Your task to perform on an android device: open app "The Home Depot" (install if not already installed) Image 0: 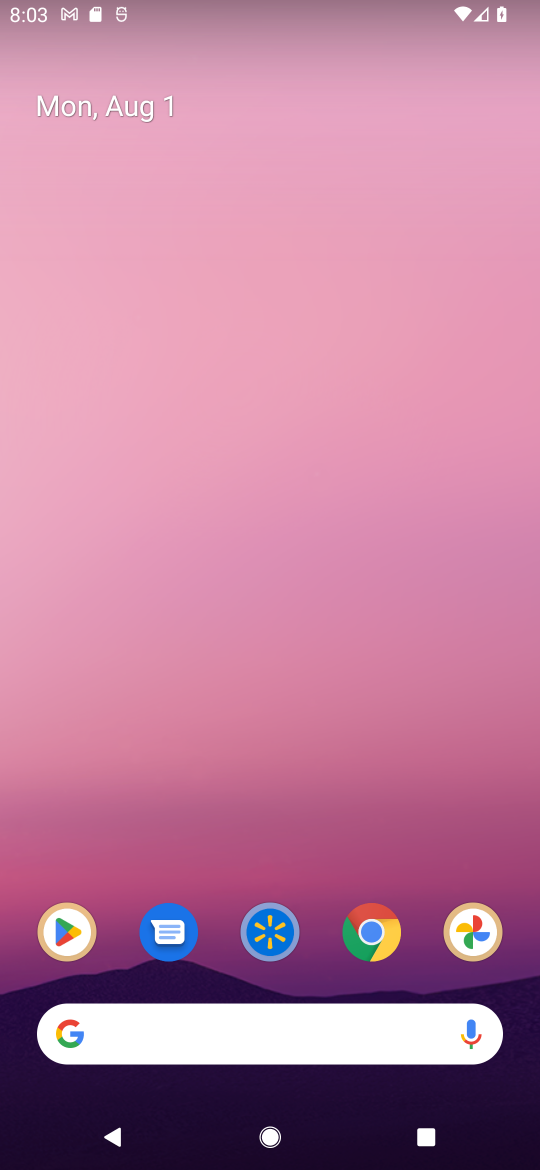
Step 0: click (66, 931)
Your task to perform on an android device: open app "The Home Depot" (install if not already installed) Image 1: 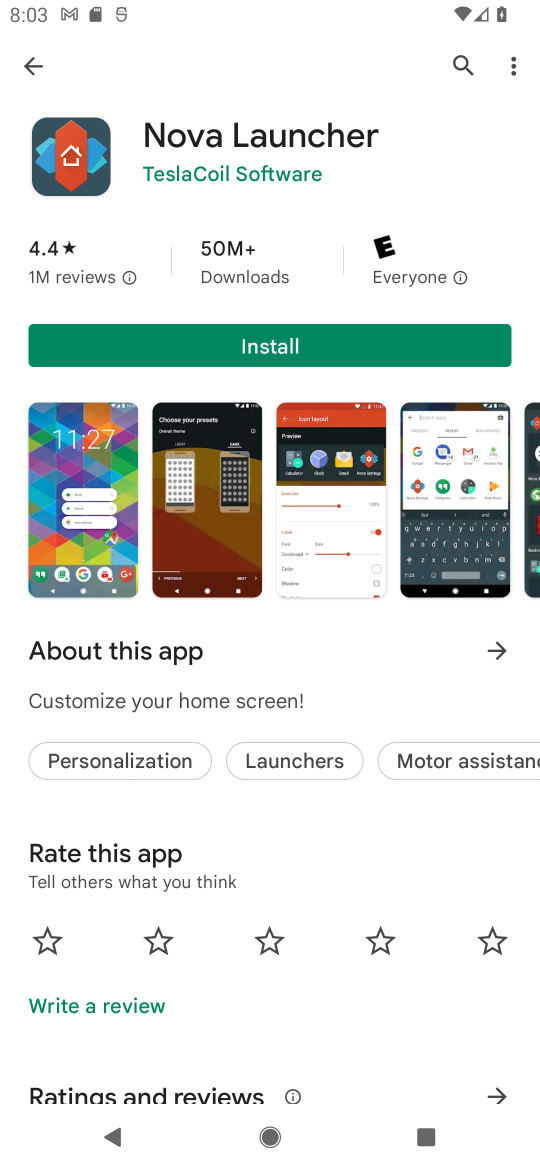
Step 1: click (25, 65)
Your task to perform on an android device: open app "The Home Depot" (install if not already installed) Image 2: 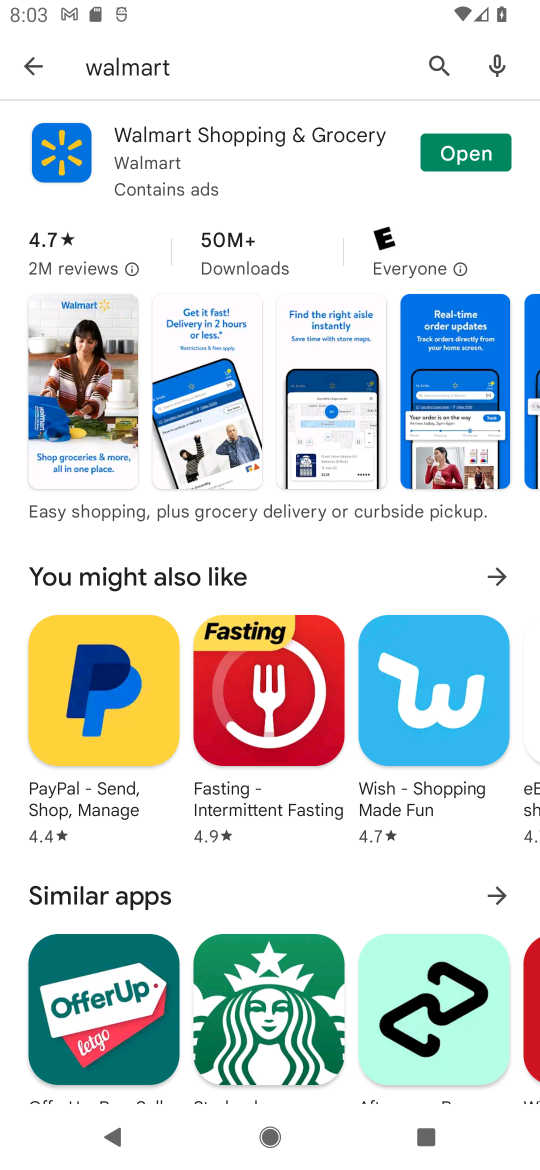
Step 2: click (226, 66)
Your task to perform on an android device: open app "The Home Depot" (install if not already installed) Image 3: 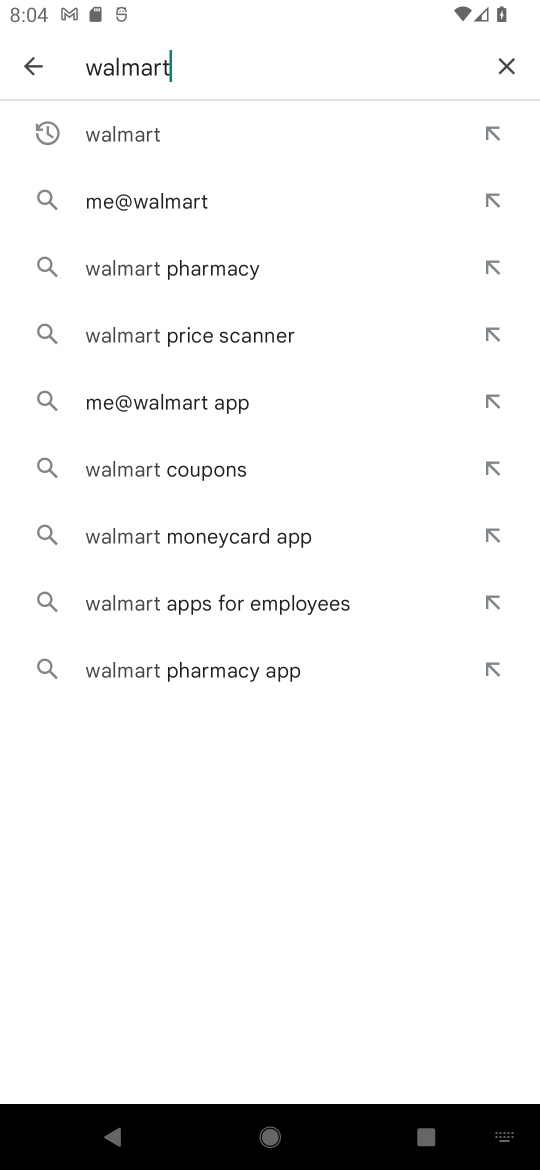
Step 3: click (514, 58)
Your task to perform on an android device: open app "The Home Depot" (install if not already installed) Image 4: 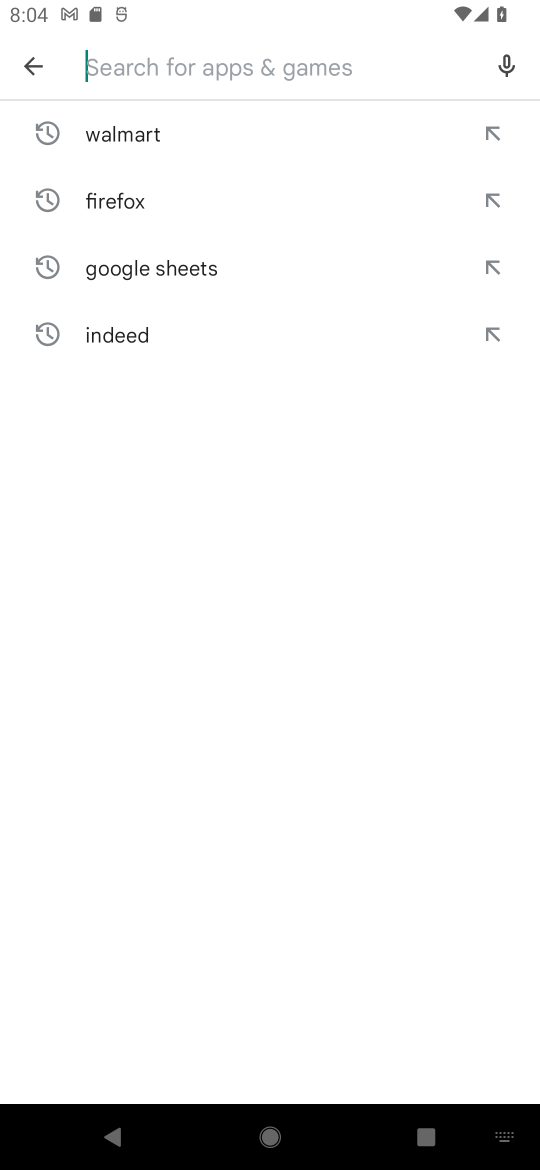
Step 4: type "the home depot"
Your task to perform on an android device: open app "The Home Depot" (install if not already installed) Image 5: 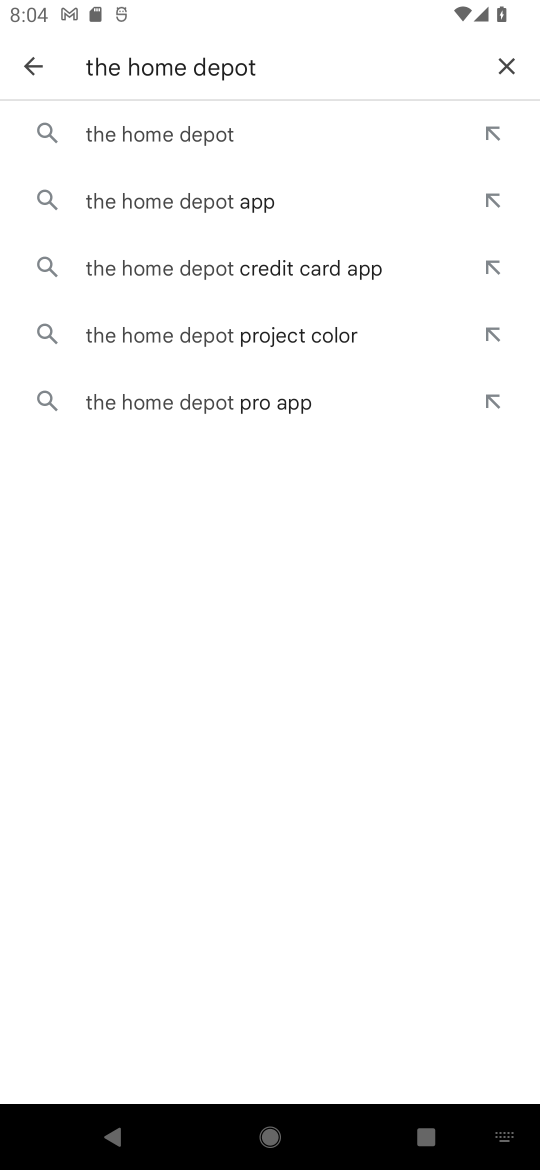
Step 5: click (149, 142)
Your task to perform on an android device: open app "The Home Depot" (install if not already installed) Image 6: 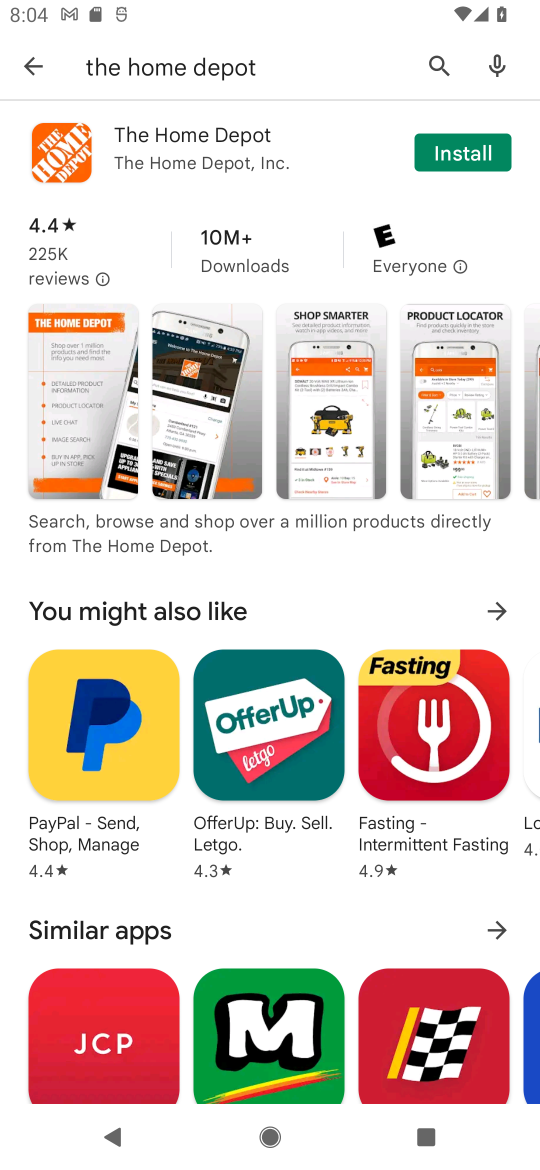
Step 6: click (486, 146)
Your task to perform on an android device: open app "The Home Depot" (install if not already installed) Image 7: 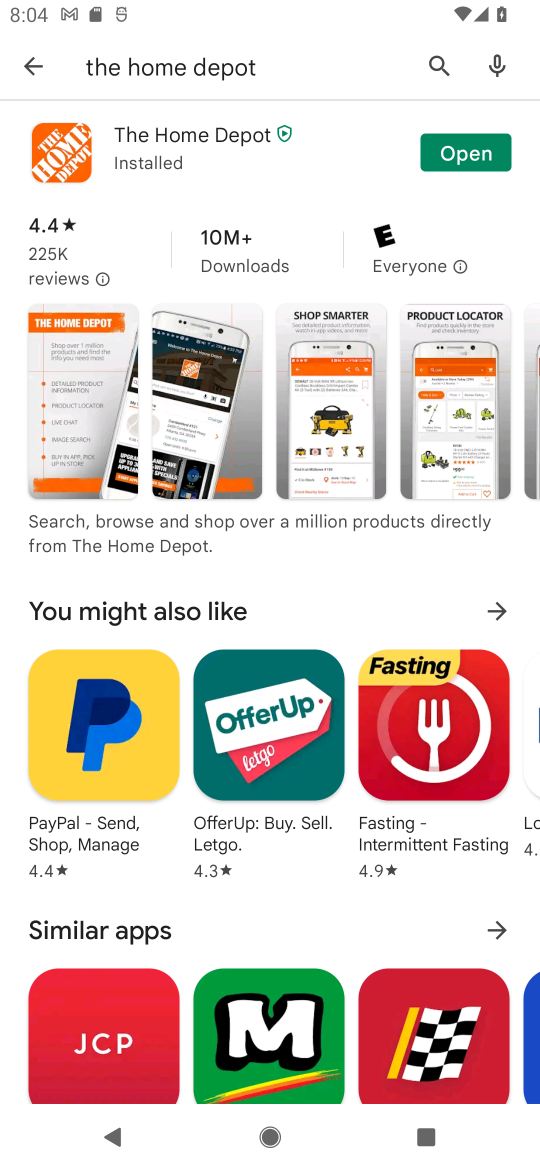
Step 7: click (466, 121)
Your task to perform on an android device: open app "The Home Depot" (install if not already installed) Image 8: 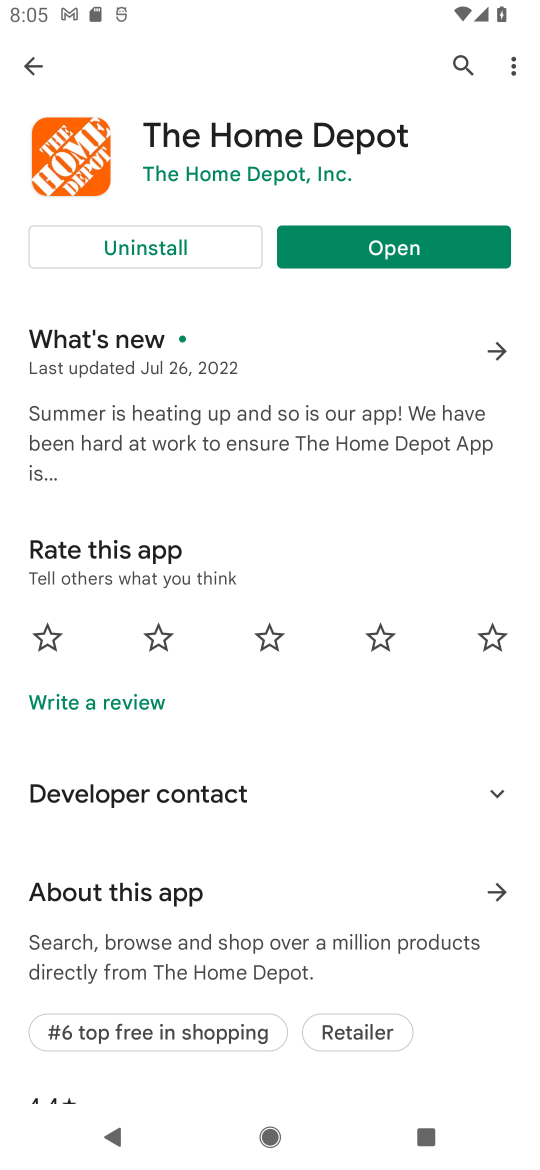
Step 8: click (440, 258)
Your task to perform on an android device: open app "The Home Depot" (install if not already installed) Image 9: 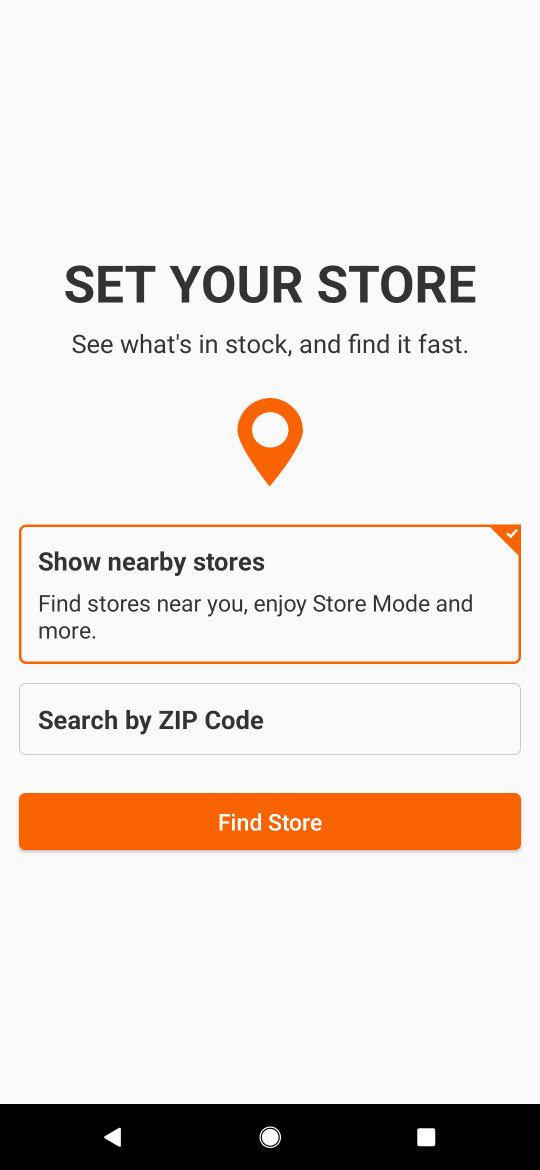
Step 9: task complete